Your task to perform on an android device: Show me the alarms in the clock app Image 0: 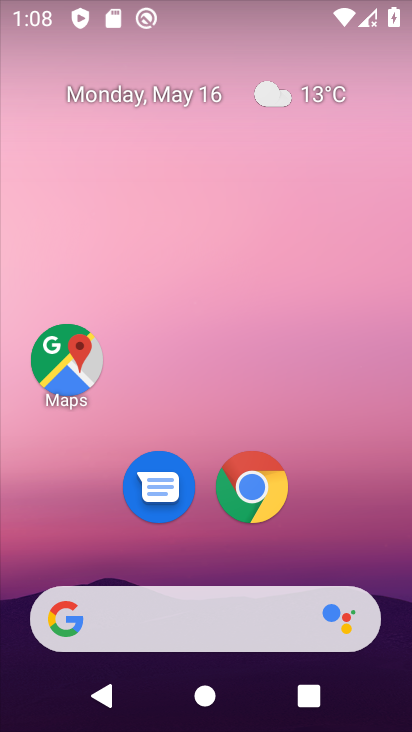
Step 0: drag from (405, 532) to (404, 231)
Your task to perform on an android device: Show me the alarms in the clock app Image 1: 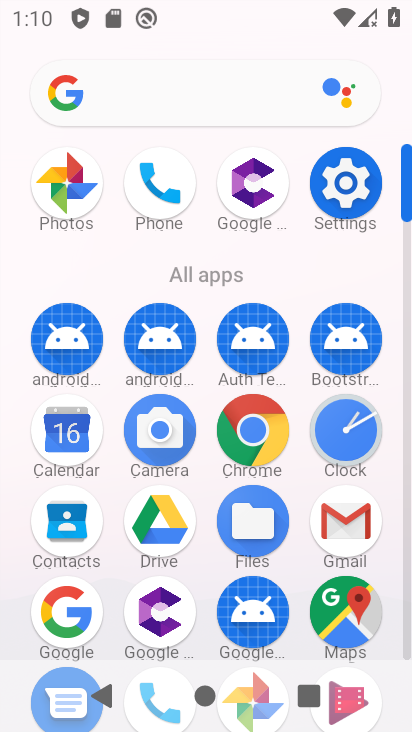
Step 1: click (330, 438)
Your task to perform on an android device: Show me the alarms in the clock app Image 2: 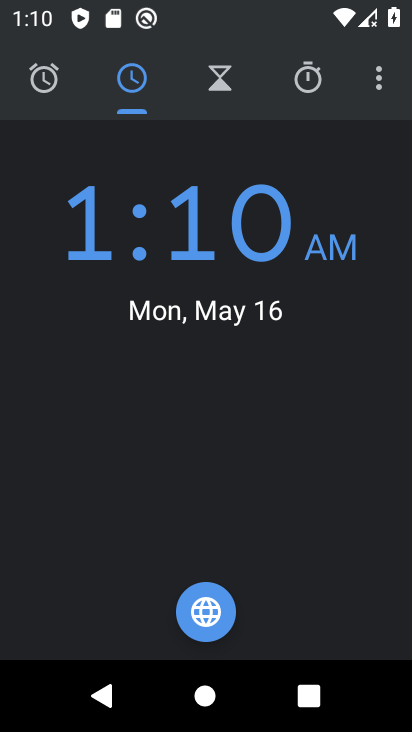
Step 2: click (33, 79)
Your task to perform on an android device: Show me the alarms in the clock app Image 3: 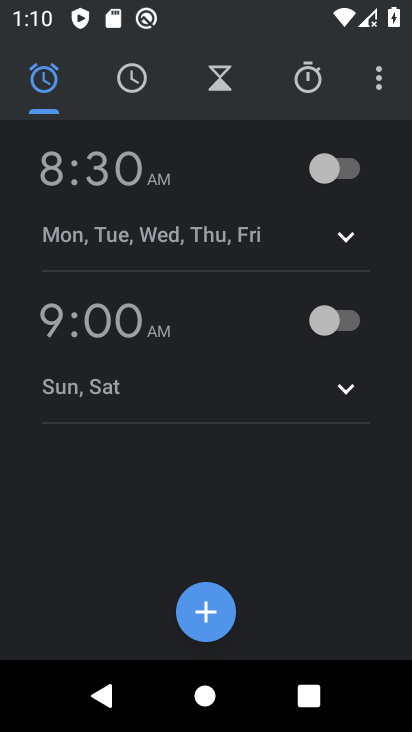
Step 3: task complete